Your task to perform on an android device: set default search engine in the chrome app Image 0: 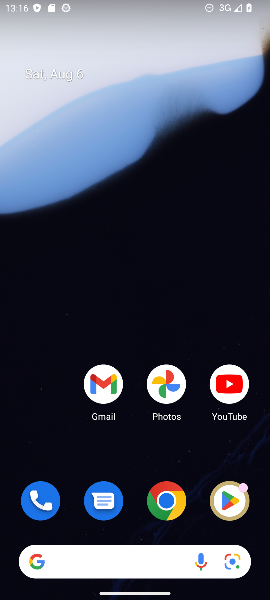
Step 0: click (168, 503)
Your task to perform on an android device: set default search engine in the chrome app Image 1: 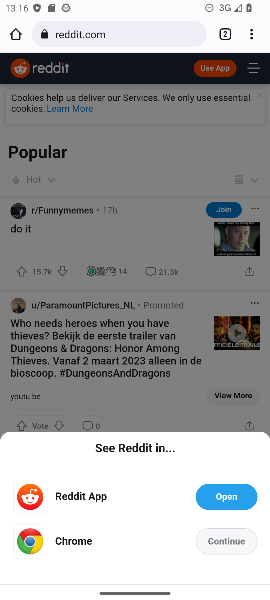
Step 1: click (221, 550)
Your task to perform on an android device: set default search engine in the chrome app Image 2: 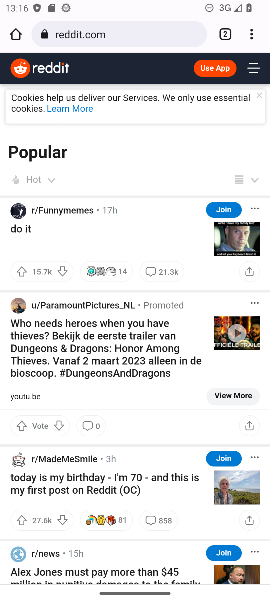
Step 2: click (250, 35)
Your task to perform on an android device: set default search engine in the chrome app Image 3: 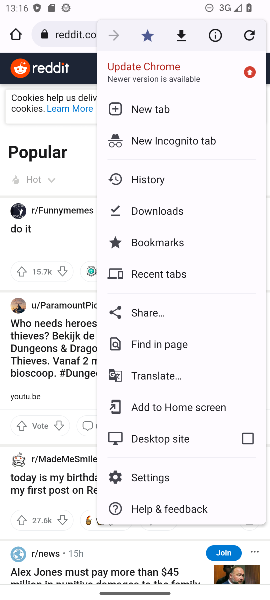
Step 3: click (136, 477)
Your task to perform on an android device: set default search engine in the chrome app Image 4: 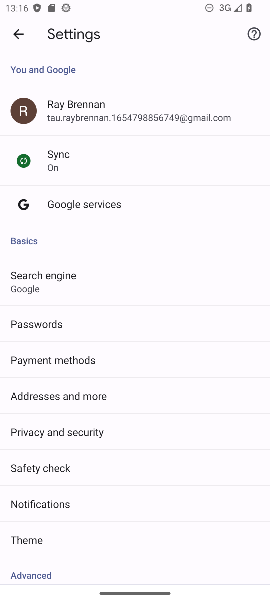
Step 4: click (63, 288)
Your task to perform on an android device: set default search engine in the chrome app Image 5: 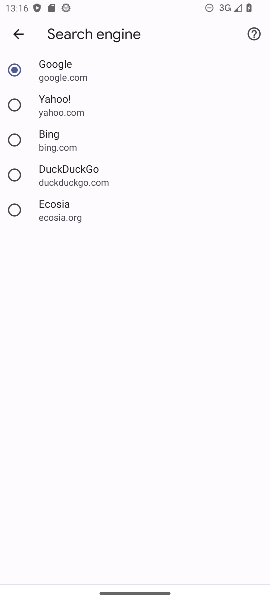
Step 5: click (11, 102)
Your task to perform on an android device: set default search engine in the chrome app Image 6: 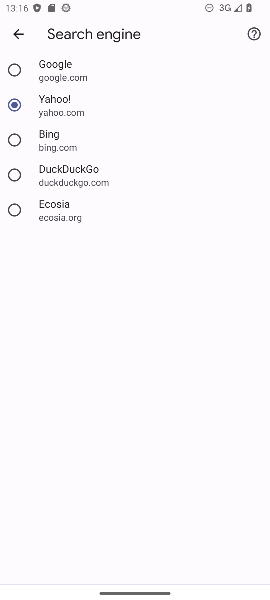
Step 6: click (24, 31)
Your task to perform on an android device: set default search engine in the chrome app Image 7: 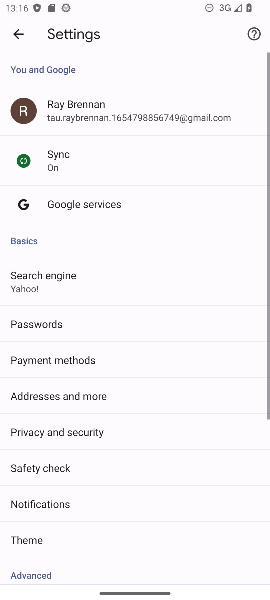
Step 7: task complete